Your task to perform on an android device: open wifi settings Image 0: 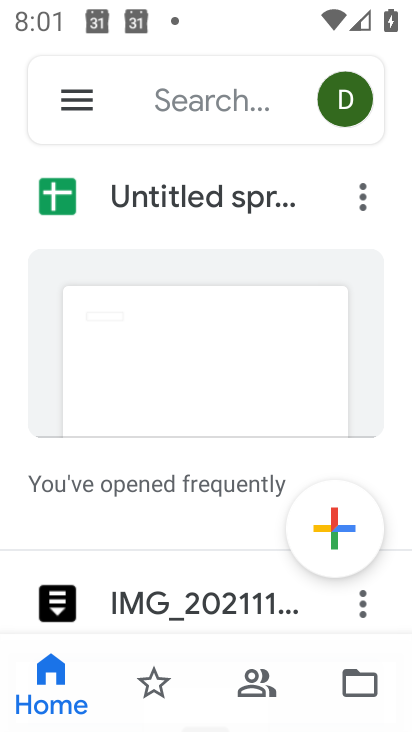
Step 0: drag from (199, 19) to (115, 538)
Your task to perform on an android device: open wifi settings Image 1: 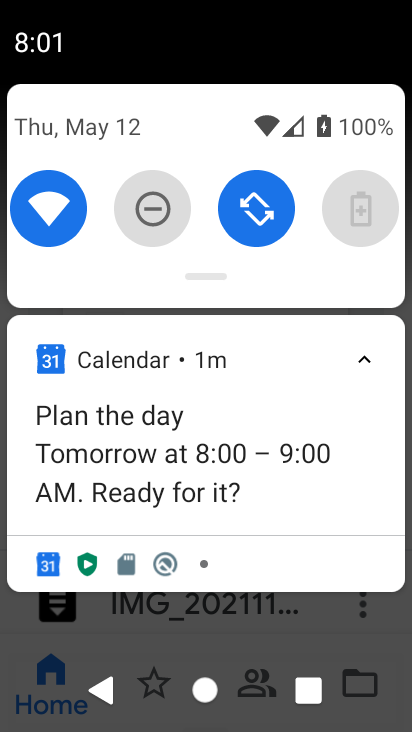
Step 1: click (76, 191)
Your task to perform on an android device: open wifi settings Image 2: 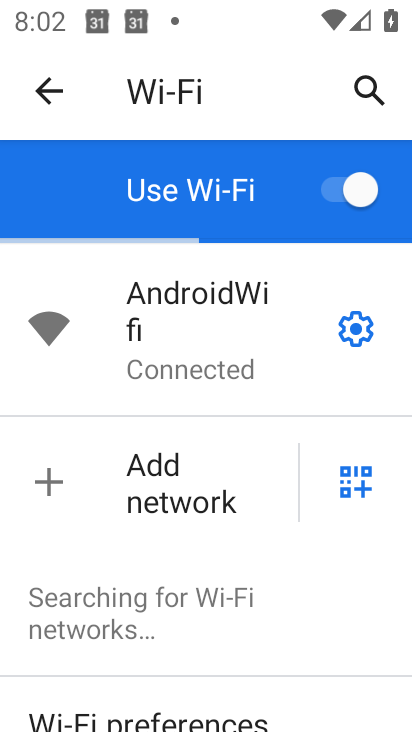
Step 2: task complete